Your task to perform on an android device: Open display settings Image 0: 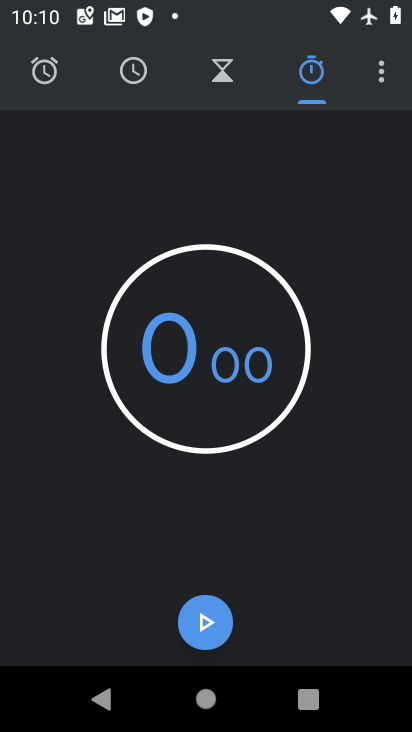
Step 0: press home button
Your task to perform on an android device: Open display settings Image 1: 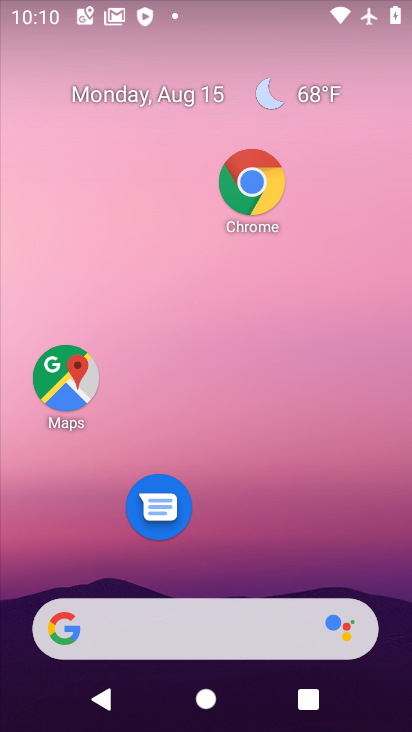
Step 1: drag from (259, 584) to (229, 73)
Your task to perform on an android device: Open display settings Image 2: 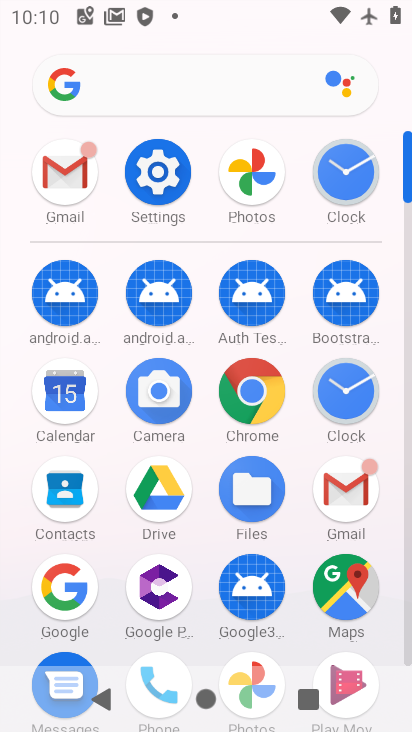
Step 2: click (159, 213)
Your task to perform on an android device: Open display settings Image 3: 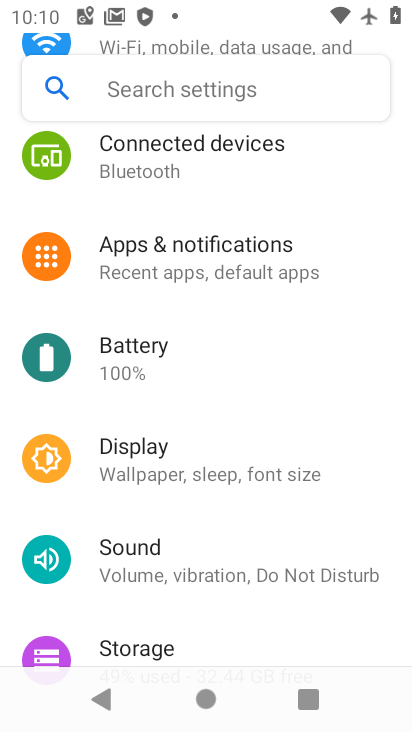
Step 3: click (164, 458)
Your task to perform on an android device: Open display settings Image 4: 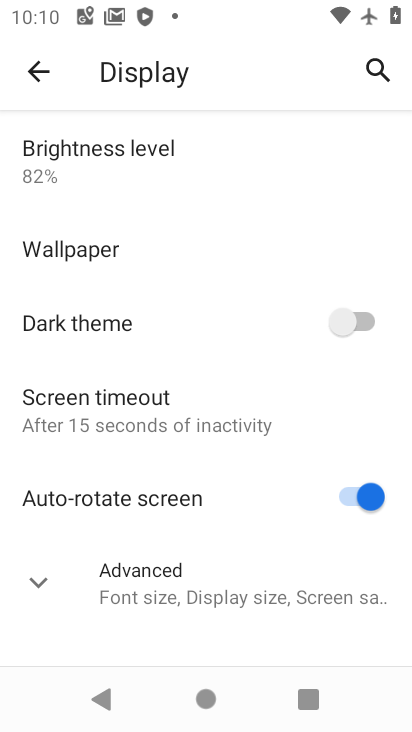
Step 4: task complete